Your task to perform on an android device: Go to Android settings Image 0: 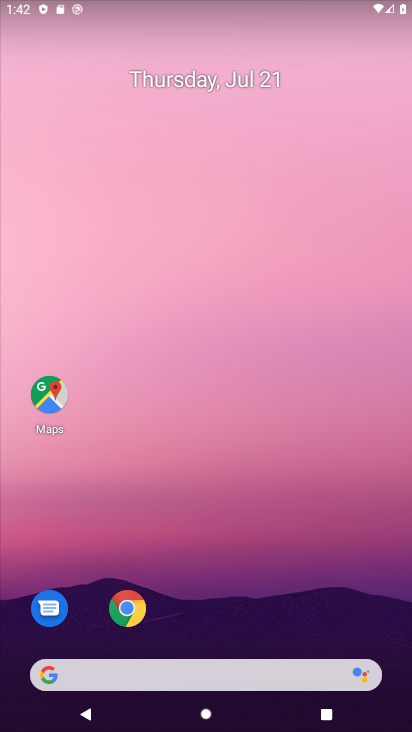
Step 0: drag from (280, 570) to (211, 127)
Your task to perform on an android device: Go to Android settings Image 1: 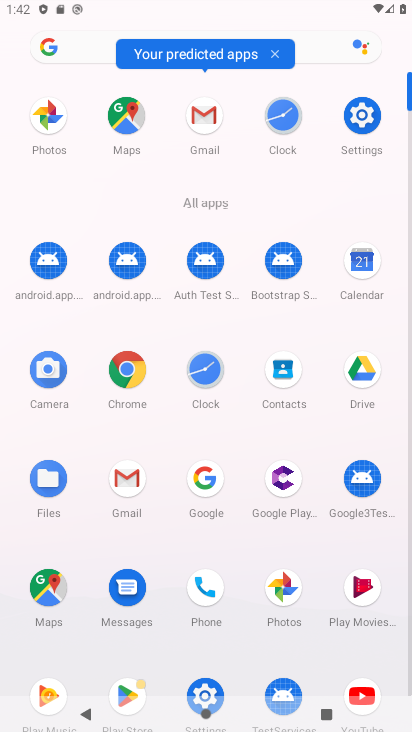
Step 1: click (361, 118)
Your task to perform on an android device: Go to Android settings Image 2: 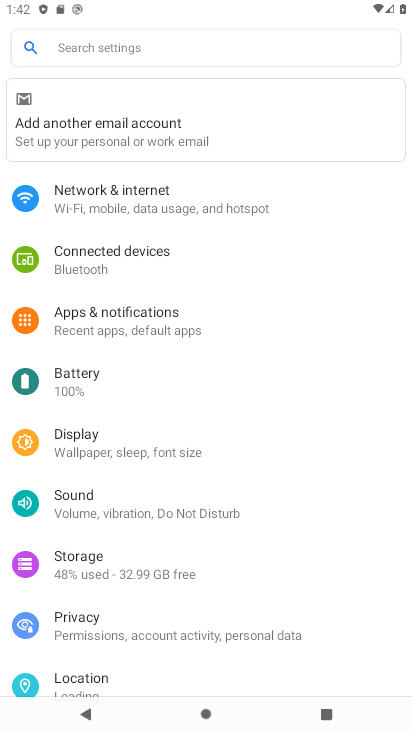
Step 2: task complete